Your task to perform on an android device: Go to calendar. Show me events next week Image 0: 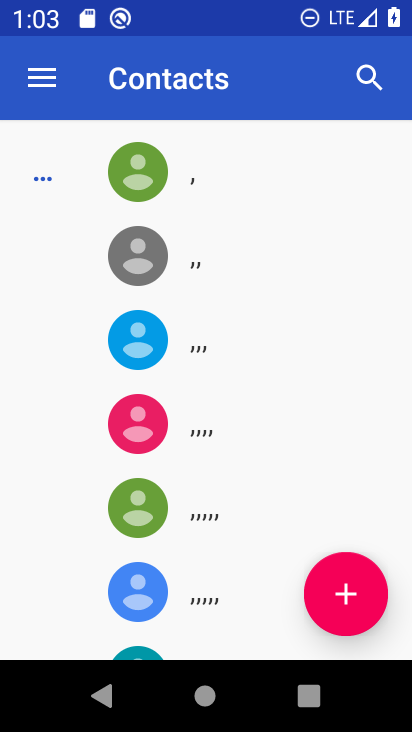
Step 0: press home button
Your task to perform on an android device: Go to calendar. Show me events next week Image 1: 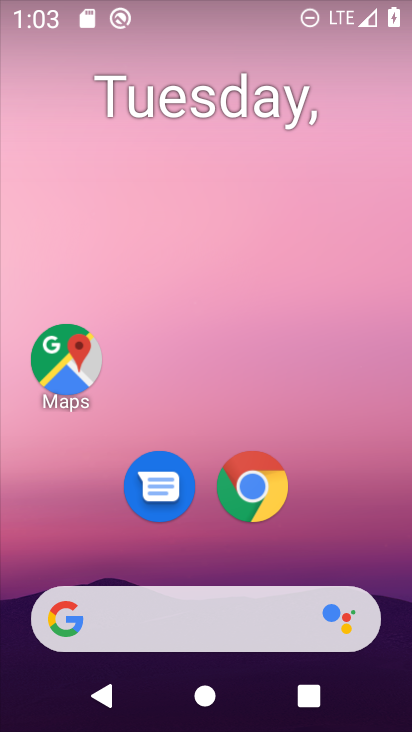
Step 1: drag from (43, 549) to (327, 120)
Your task to perform on an android device: Go to calendar. Show me events next week Image 2: 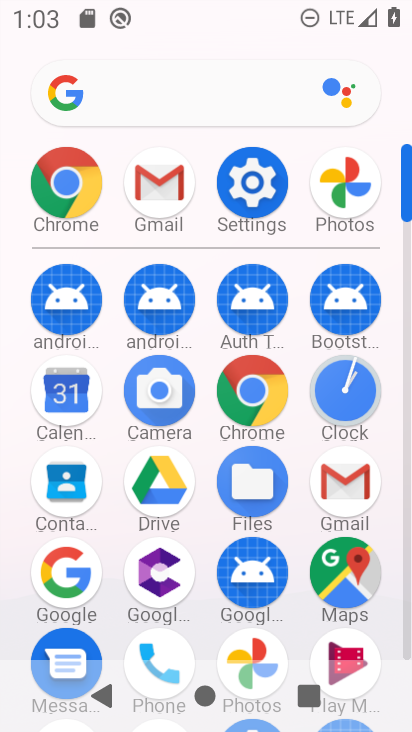
Step 2: click (64, 410)
Your task to perform on an android device: Go to calendar. Show me events next week Image 3: 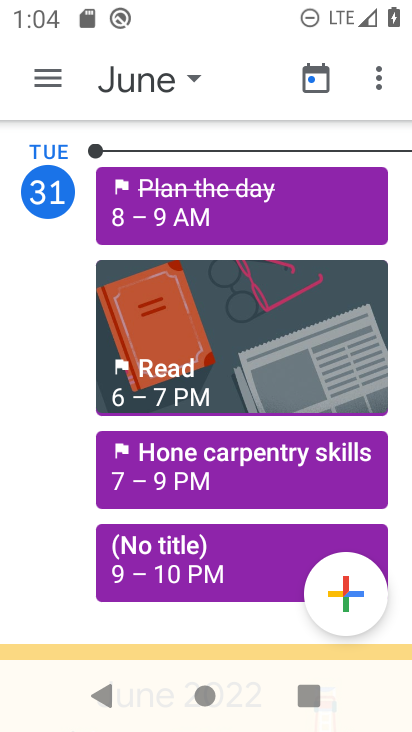
Step 3: click (152, 86)
Your task to perform on an android device: Go to calendar. Show me events next week Image 4: 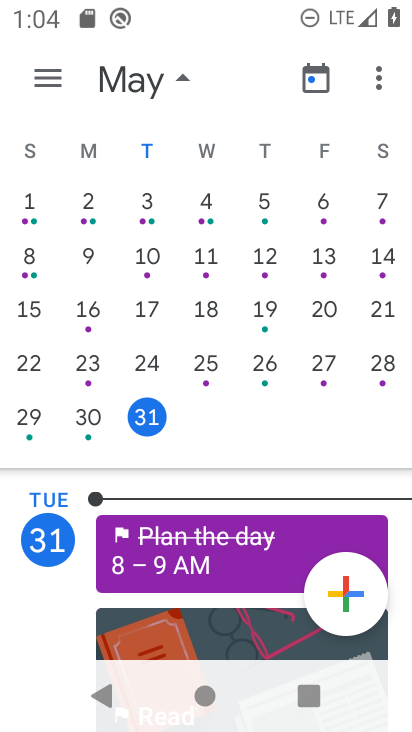
Step 4: click (30, 205)
Your task to perform on an android device: Go to calendar. Show me events next week Image 5: 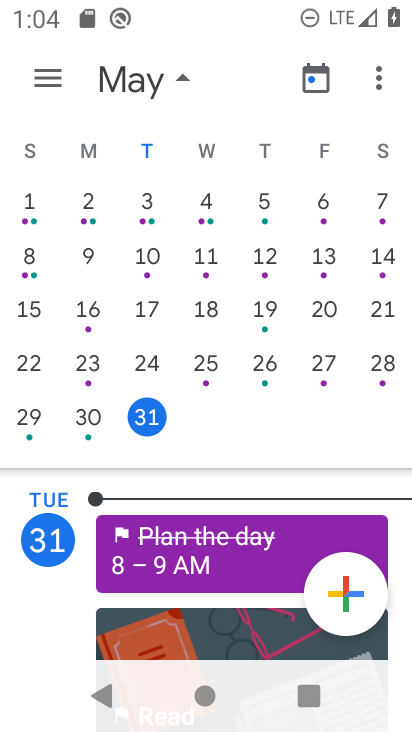
Step 5: drag from (370, 338) to (0, 294)
Your task to perform on an android device: Go to calendar. Show me events next week Image 6: 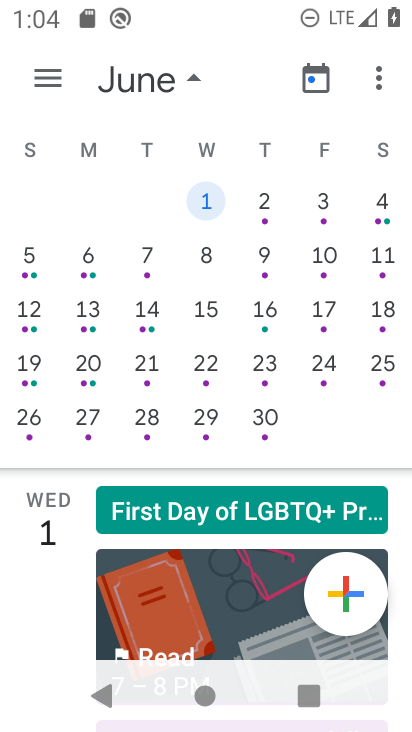
Step 6: click (265, 210)
Your task to perform on an android device: Go to calendar. Show me events next week Image 7: 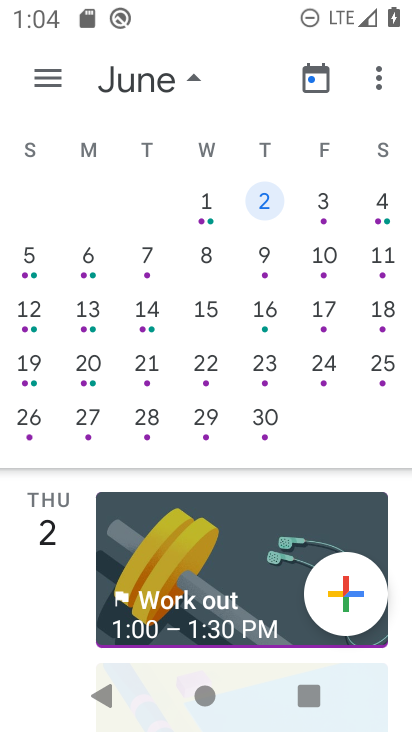
Step 7: click (315, 205)
Your task to perform on an android device: Go to calendar. Show me events next week Image 8: 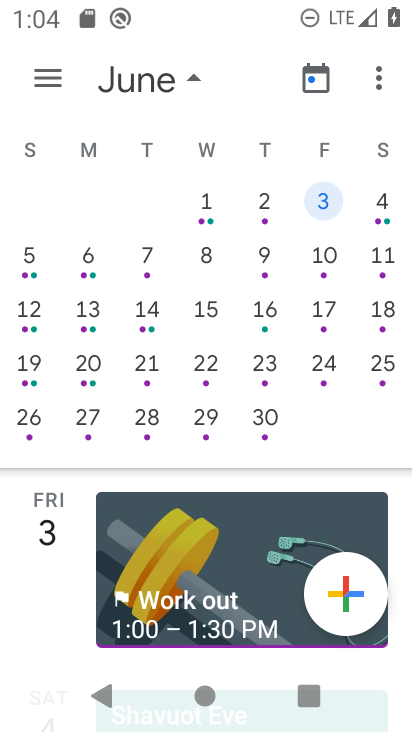
Step 8: task complete